Your task to perform on an android device: Go to Yahoo.com Image 0: 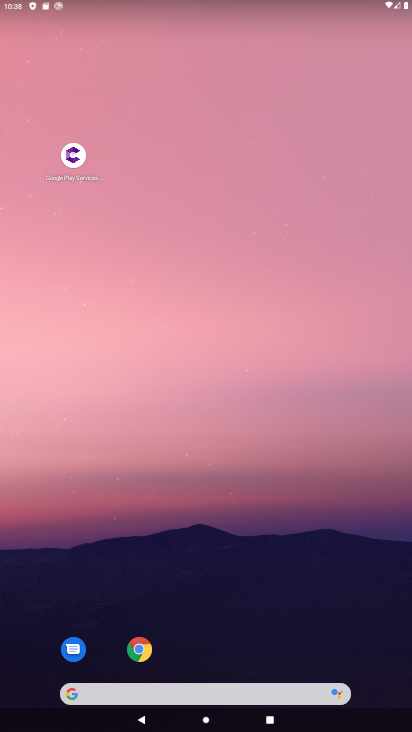
Step 0: click (142, 649)
Your task to perform on an android device: Go to Yahoo.com Image 1: 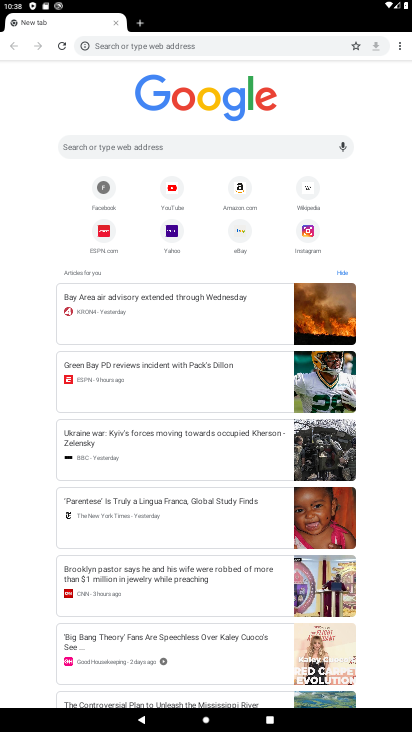
Step 1: click (176, 241)
Your task to perform on an android device: Go to Yahoo.com Image 2: 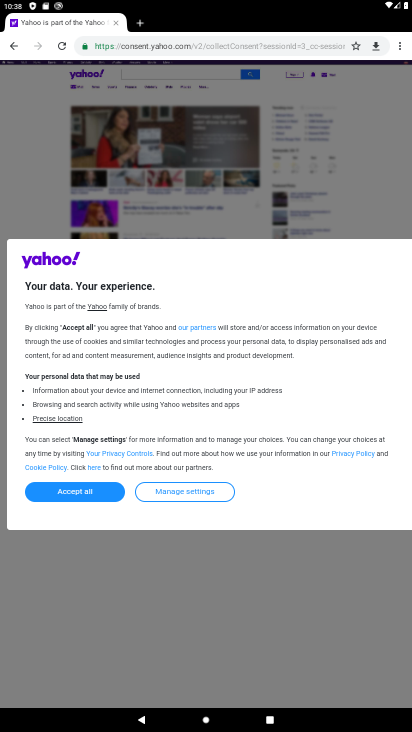
Step 2: task complete